Your task to perform on an android device: turn pop-ups off in chrome Image 0: 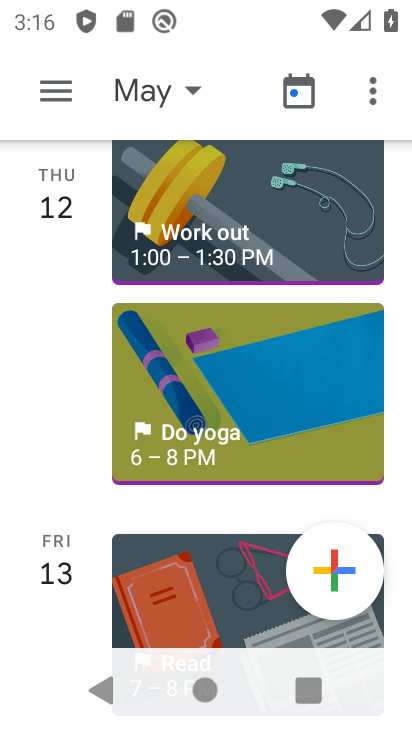
Step 0: press back button
Your task to perform on an android device: turn pop-ups off in chrome Image 1: 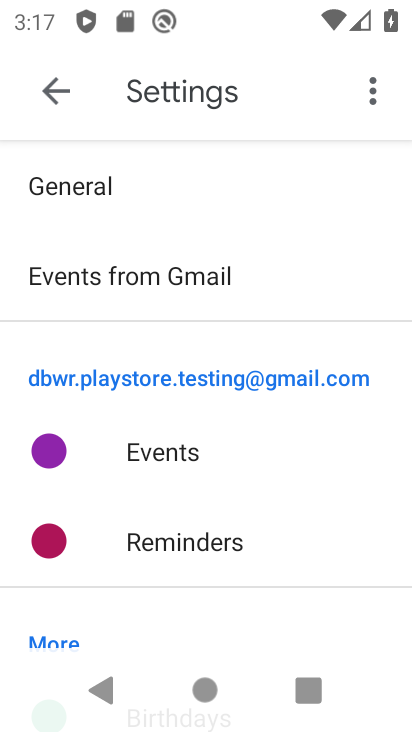
Step 1: click (367, 96)
Your task to perform on an android device: turn pop-ups off in chrome Image 2: 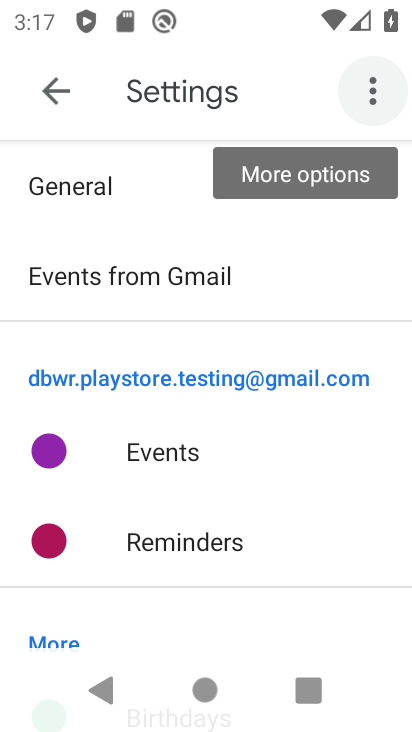
Step 2: click (367, 96)
Your task to perform on an android device: turn pop-ups off in chrome Image 3: 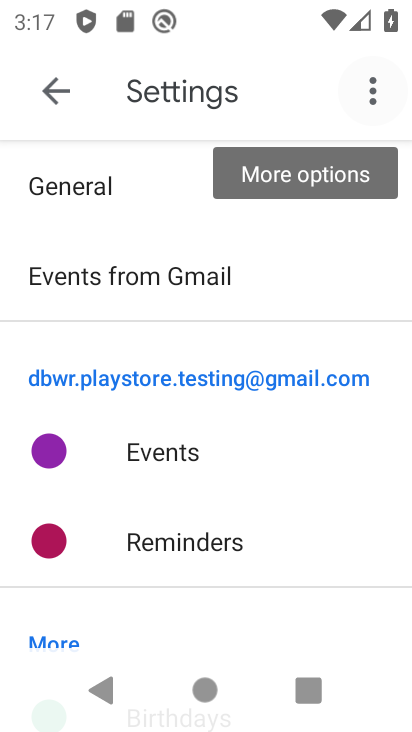
Step 3: click (367, 96)
Your task to perform on an android device: turn pop-ups off in chrome Image 4: 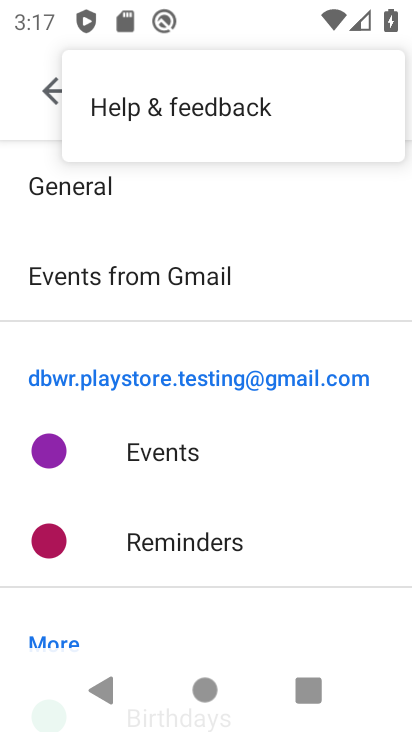
Step 4: click (293, 114)
Your task to perform on an android device: turn pop-ups off in chrome Image 5: 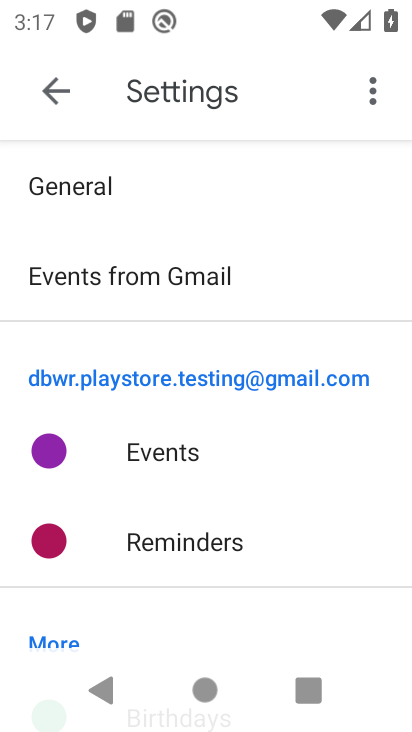
Step 5: click (47, 93)
Your task to perform on an android device: turn pop-ups off in chrome Image 6: 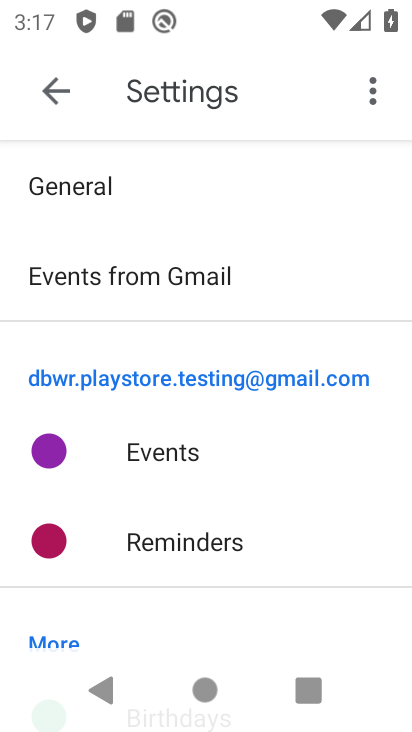
Step 6: click (48, 92)
Your task to perform on an android device: turn pop-ups off in chrome Image 7: 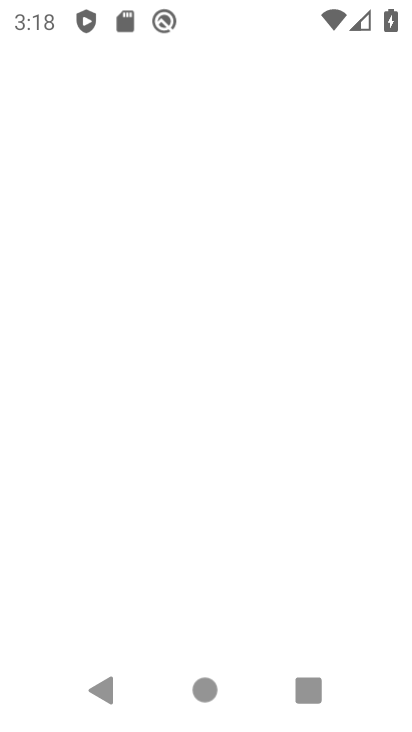
Step 7: press back button
Your task to perform on an android device: turn pop-ups off in chrome Image 8: 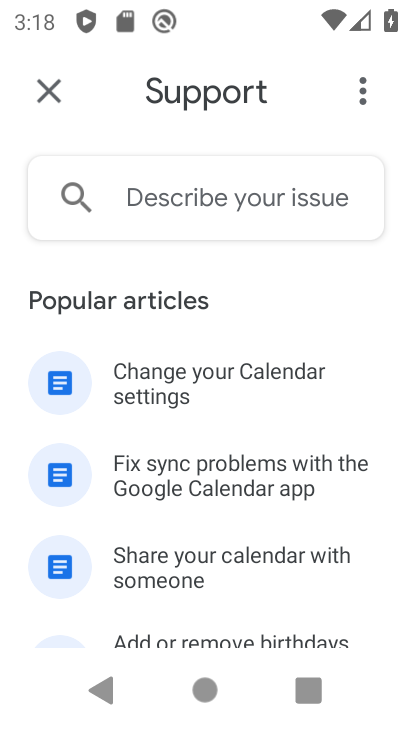
Step 8: press back button
Your task to perform on an android device: turn pop-ups off in chrome Image 9: 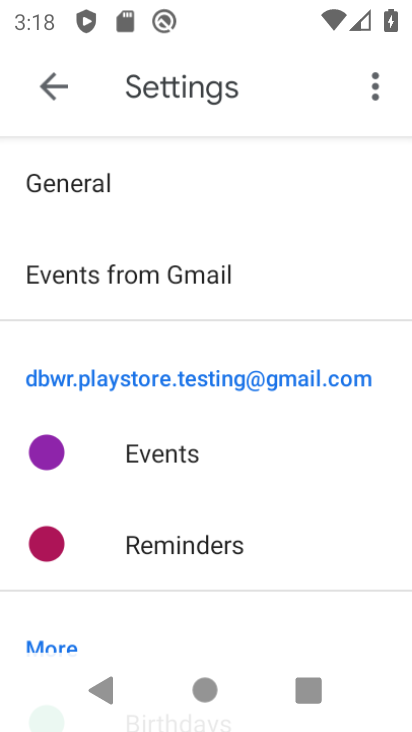
Step 9: press back button
Your task to perform on an android device: turn pop-ups off in chrome Image 10: 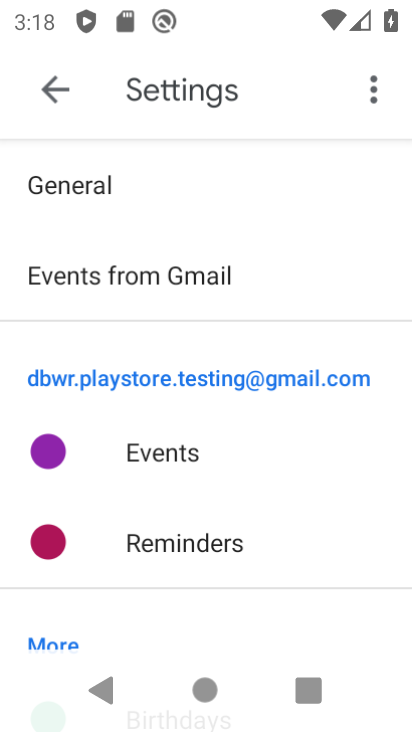
Step 10: press home button
Your task to perform on an android device: turn pop-ups off in chrome Image 11: 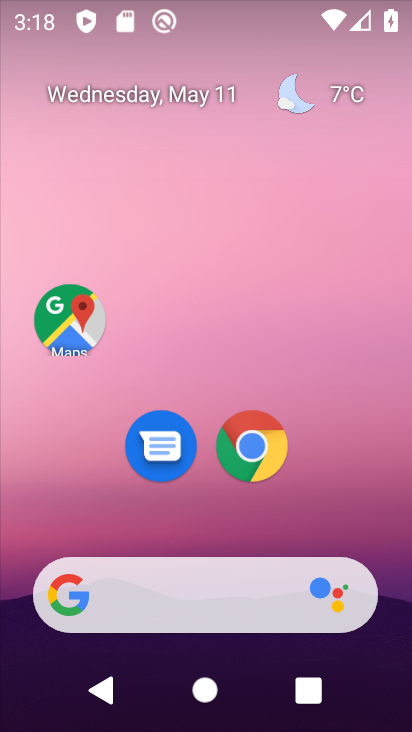
Step 11: press home button
Your task to perform on an android device: turn pop-ups off in chrome Image 12: 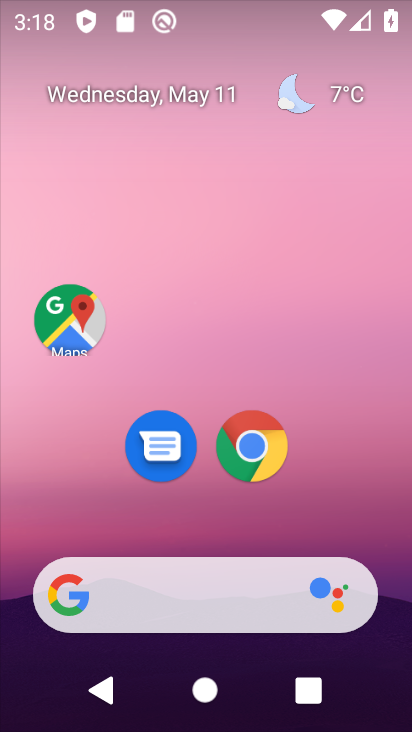
Step 12: press back button
Your task to perform on an android device: turn pop-ups off in chrome Image 13: 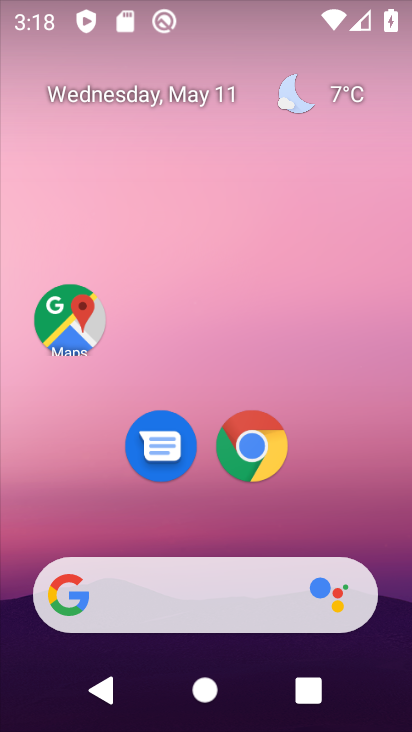
Step 13: drag from (363, 703) to (82, 51)
Your task to perform on an android device: turn pop-ups off in chrome Image 14: 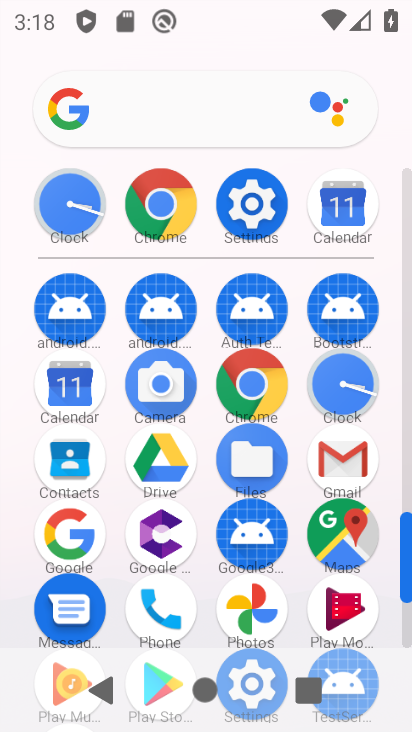
Step 14: click (157, 208)
Your task to perform on an android device: turn pop-ups off in chrome Image 15: 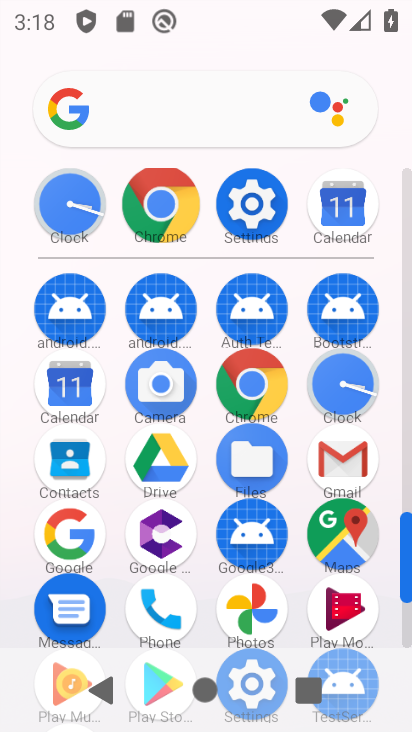
Step 15: click (154, 205)
Your task to perform on an android device: turn pop-ups off in chrome Image 16: 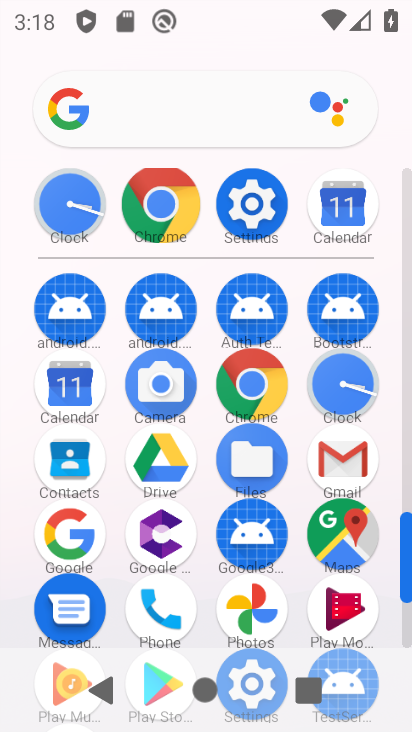
Step 16: click (154, 205)
Your task to perform on an android device: turn pop-ups off in chrome Image 17: 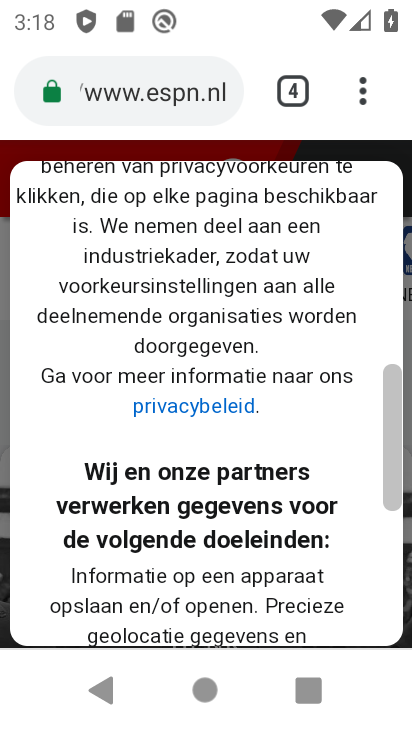
Step 17: drag from (362, 93) to (81, 485)
Your task to perform on an android device: turn pop-ups off in chrome Image 18: 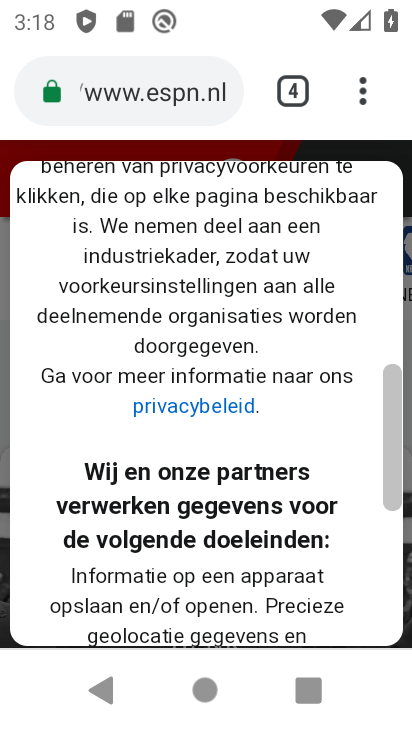
Step 18: click (88, 488)
Your task to perform on an android device: turn pop-ups off in chrome Image 19: 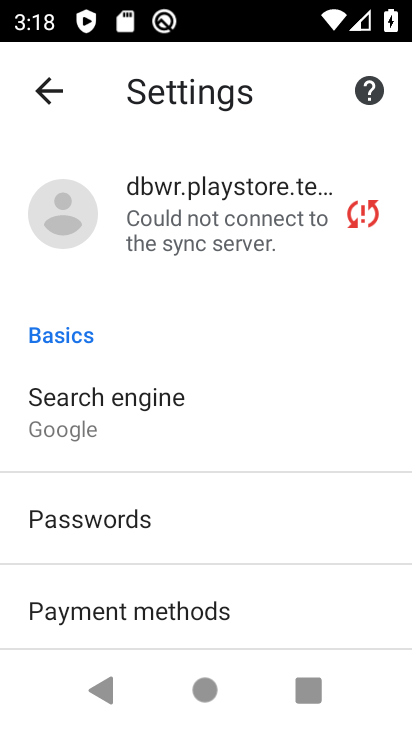
Step 19: drag from (185, 489) to (166, 174)
Your task to perform on an android device: turn pop-ups off in chrome Image 20: 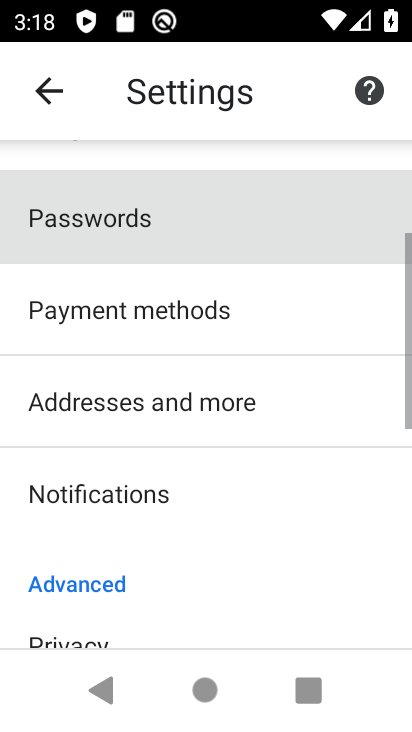
Step 20: drag from (224, 465) to (215, 208)
Your task to perform on an android device: turn pop-ups off in chrome Image 21: 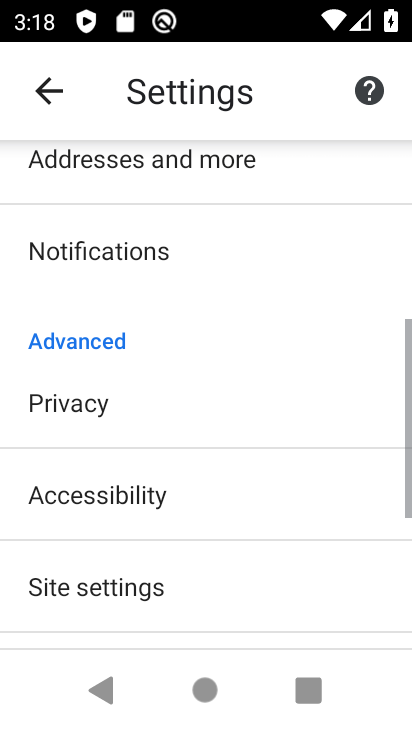
Step 21: drag from (235, 453) to (191, 257)
Your task to perform on an android device: turn pop-ups off in chrome Image 22: 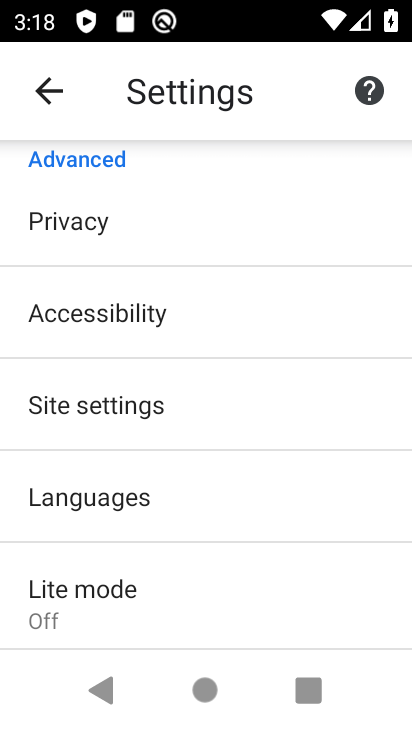
Step 22: click (72, 406)
Your task to perform on an android device: turn pop-ups off in chrome Image 23: 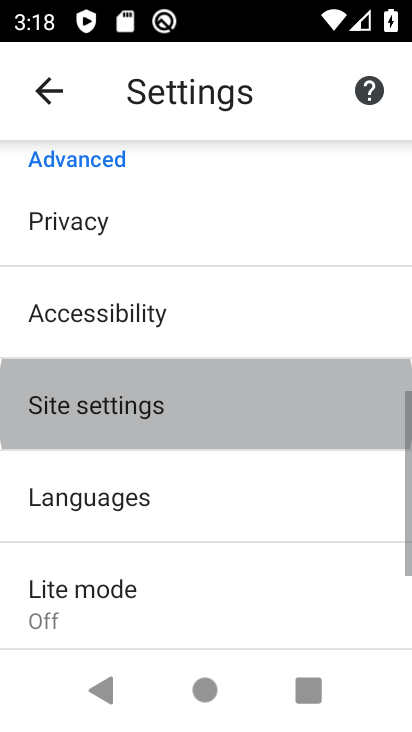
Step 23: click (74, 408)
Your task to perform on an android device: turn pop-ups off in chrome Image 24: 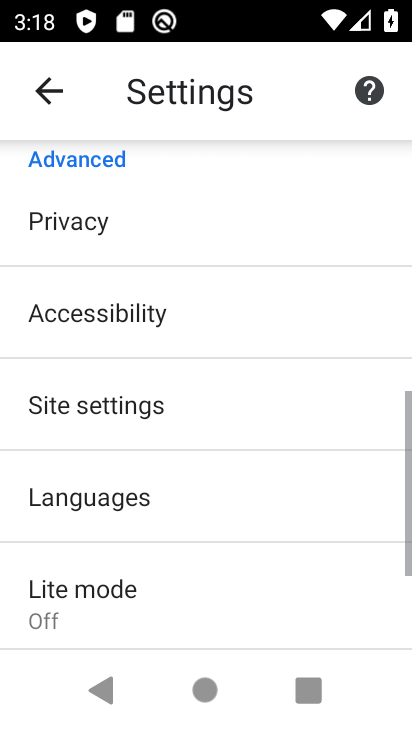
Step 24: click (74, 408)
Your task to perform on an android device: turn pop-ups off in chrome Image 25: 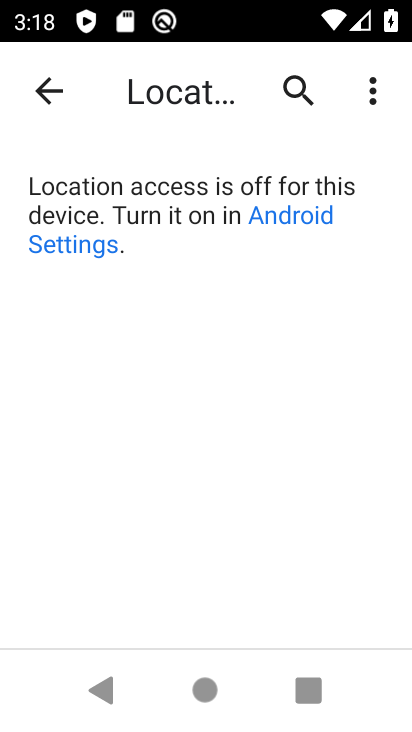
Step 25: click (55, 95)
Your task to perform on an android device: turn pop-ups off in chrome Image 26: 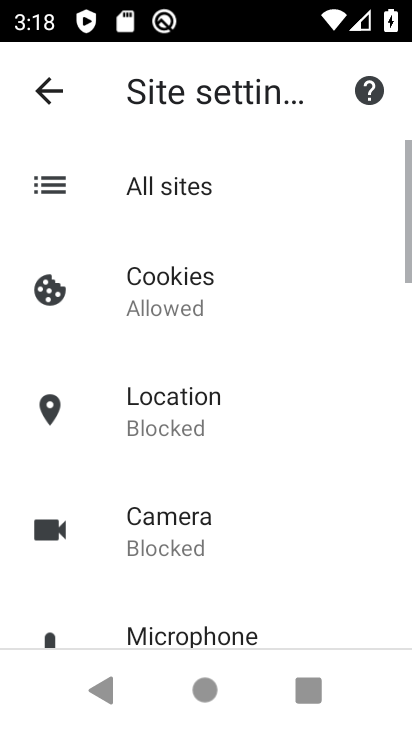
Step 26: drag from (244, 550) to (208, 155)
Your task to perform on an android device: turn pop-ups off in chrome Image 27: 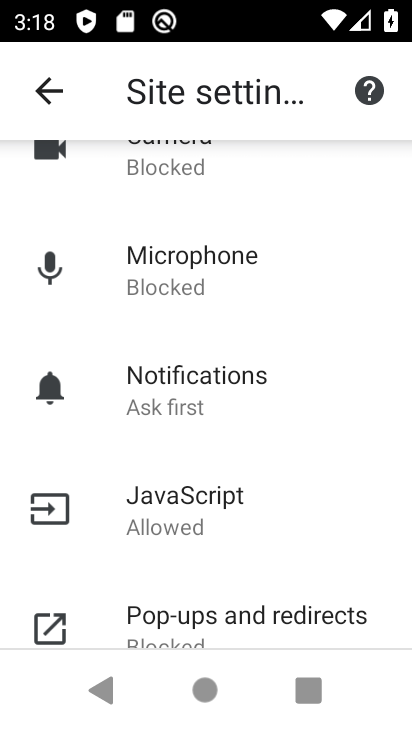
Step 27: drag from (265, 570) to (252, 315)
Your task to perform on an android device: turn pop-ups off in chrome Image 28: 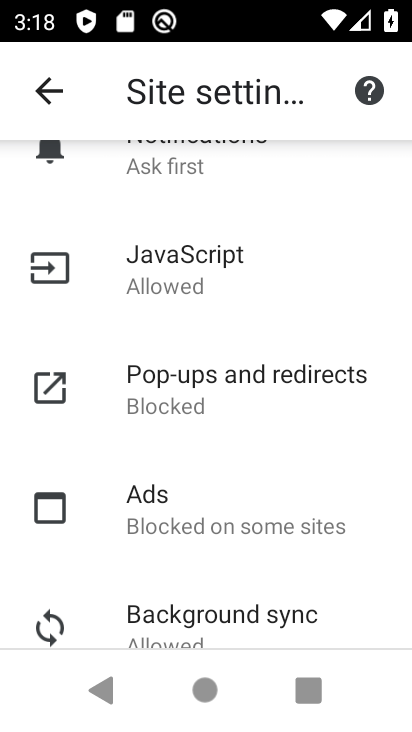
Step 28: click (190, 378)
Your task to perform on an android device: turn pop-ups off in chrome Image 29: 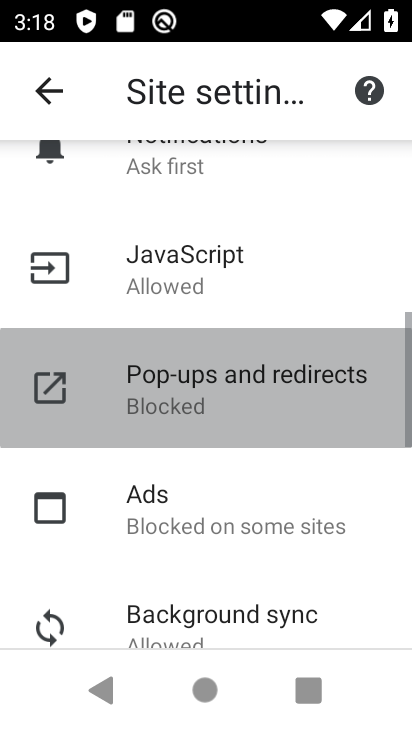
Step 29: click (192, 377)
Your task to perform on an android device: turn pop-ups off in chrome Image 30: 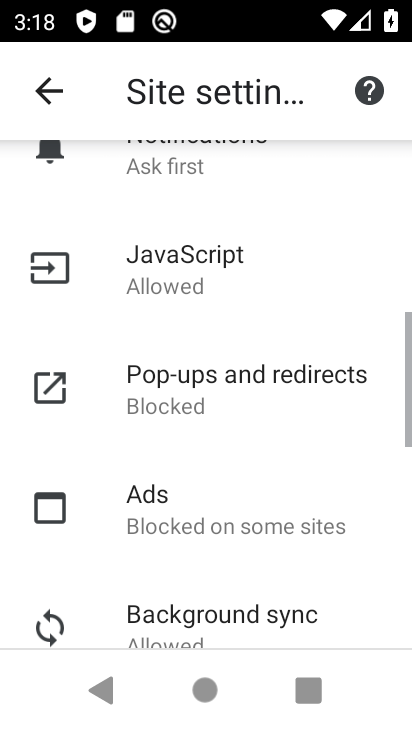
Step 30: click (193, 377)
Your task to perform on an android device: turn pop-ups off in chrome Image 31: 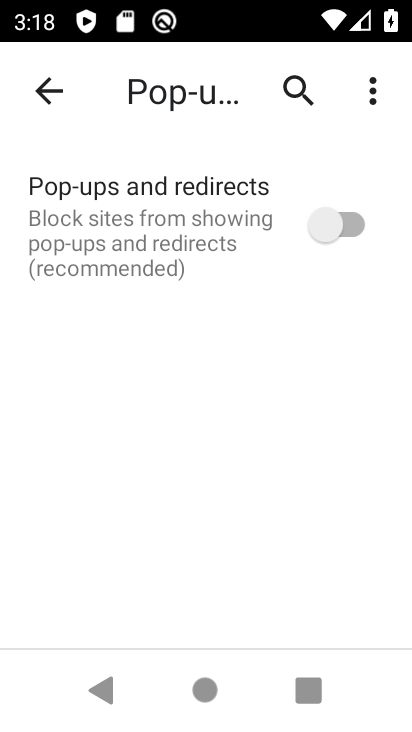
Step 31: task complete